Your task to perform on an android device: Go to Wikipedia Image 0: 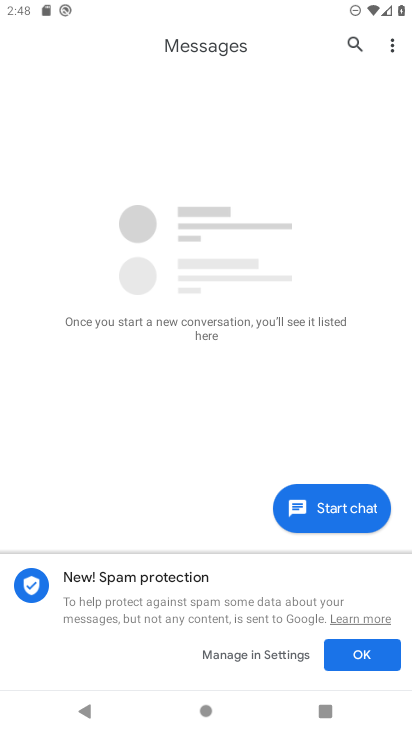
Step 0: press home button
Your task to perform on an android device: Go to Wikipedia Image 1: 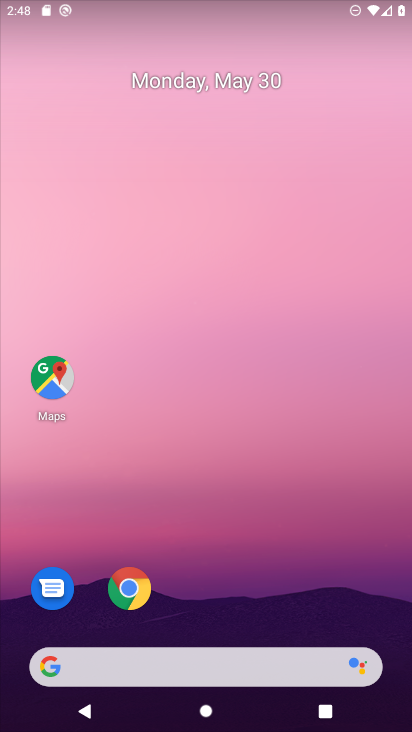
Step 1: click (132, 580)
Your task to perform on an android device: Go to Wikipedia Image 2: 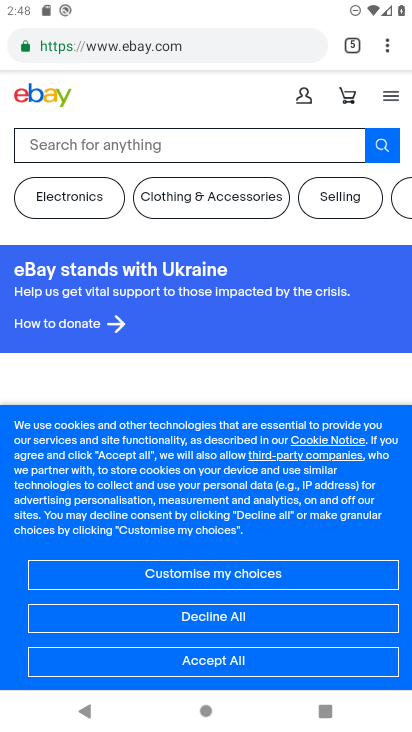
Step 2: click (390, 34)
Your task to perform on an android device: Go to Wikipedia Image 3: 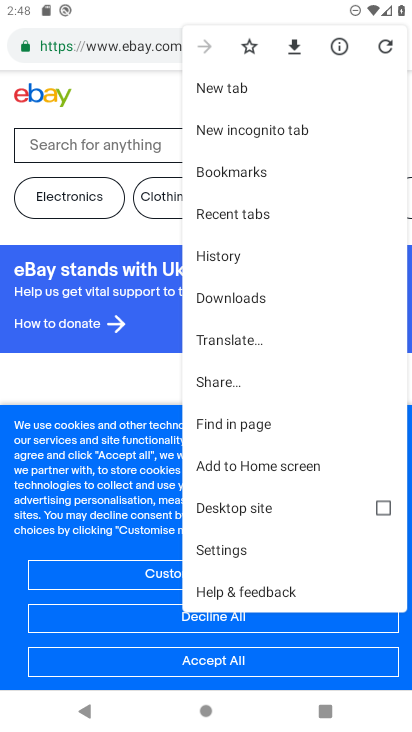
Step 3: click (213, 92)
Your task to perform on an android device: Go to Wikipedia Image 4: 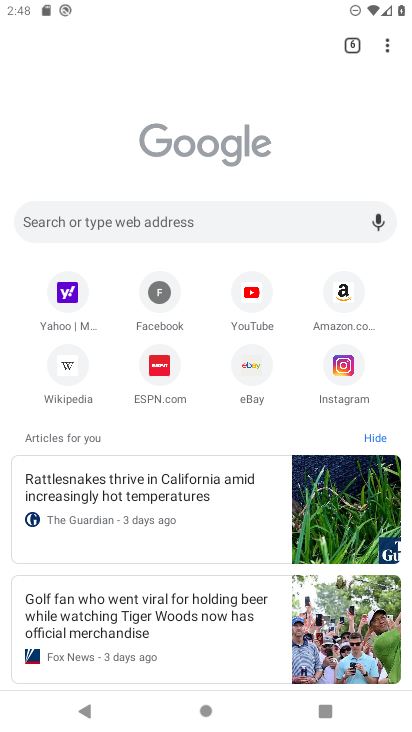
Step 4: click (70, 369)
Your task to perform on an android device: Go to Wikipedia Image 5: 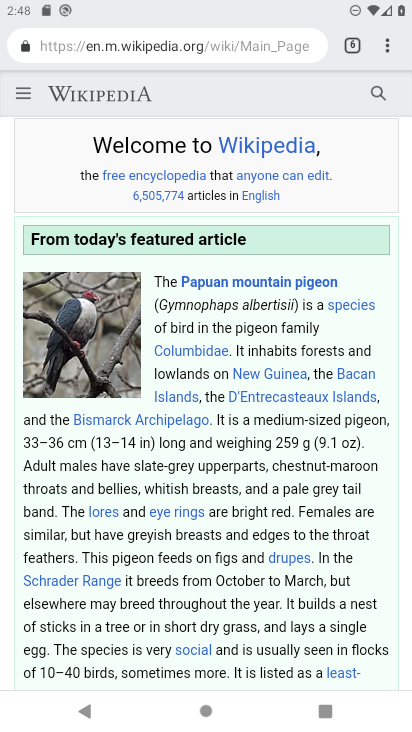
Step 5: task complete